Your task to perform on an android device: turn on data saver in the chrome app Image 0: 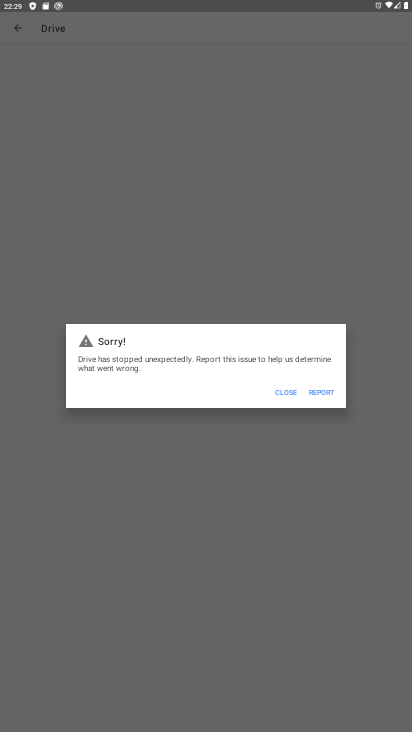
Step 0: press home button
Your task to perform on an android device: turn on data saver in the chrome app Image 1: 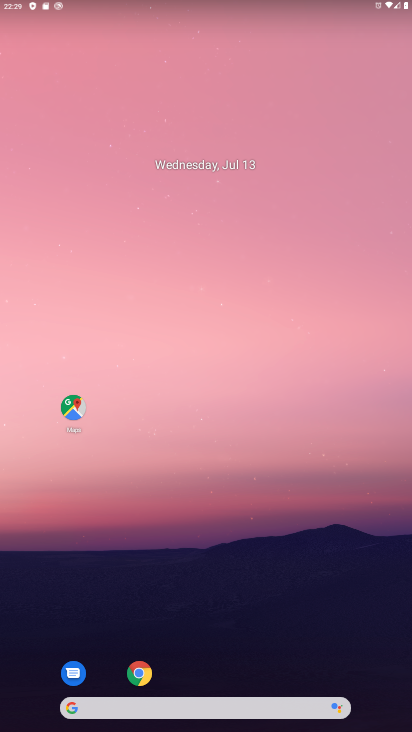
Step 1: drag from (202, 660) to (222, 277)
Your task to perform on an android device: turn on data saver in the chrome app Image 2: 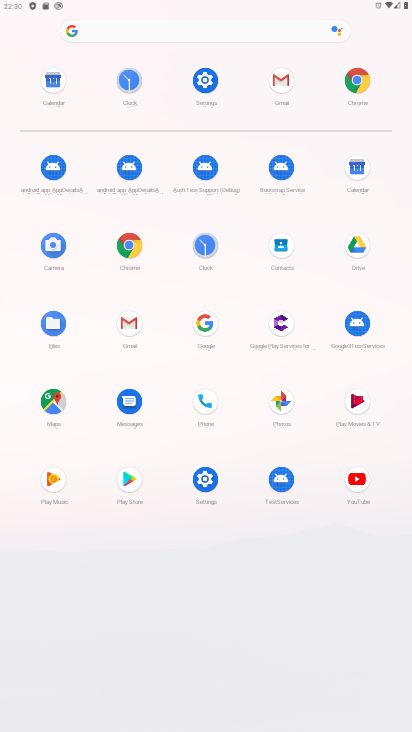
Step 2: click (131, 251)
Your task to perform on an android device: turn on data saver in the chrome app Image 3: 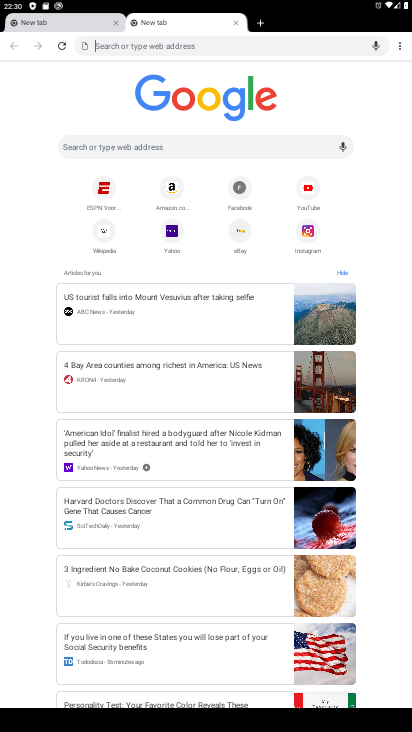
Step 3: click (396, 47)
Your task to perform on an android device: turn on data saver in the chrome app Image 4: 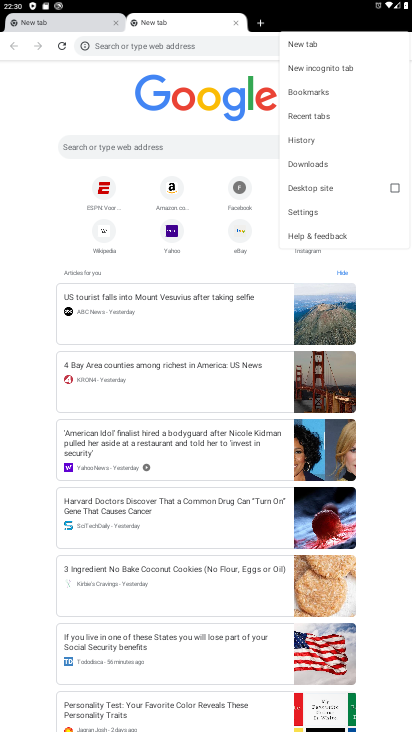
Step 4: click (301, 215)
Your task to perform on an android device: turn on data saver in the chrome app Image 5: 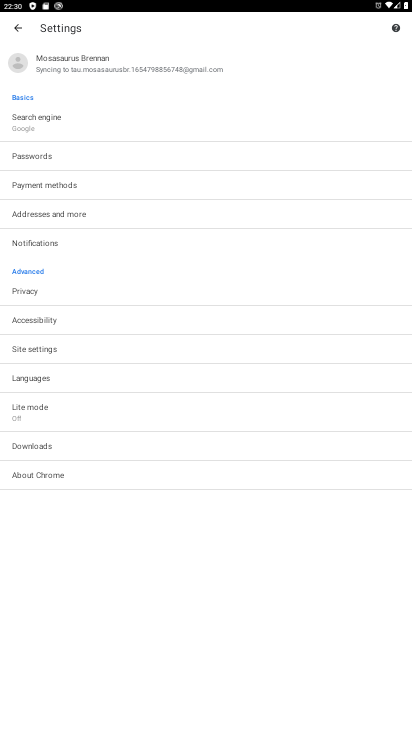
Step 5: click (49, 411)
Your task to perform on an android device: turn on data saver in the chrome app Image 6: 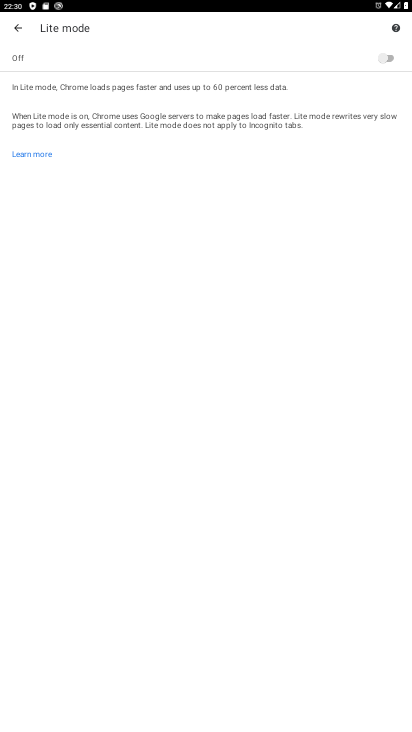
Step 6: click (387, 60)
Your task to perform on an android device: turn on data saver in the chrome app Image 7: 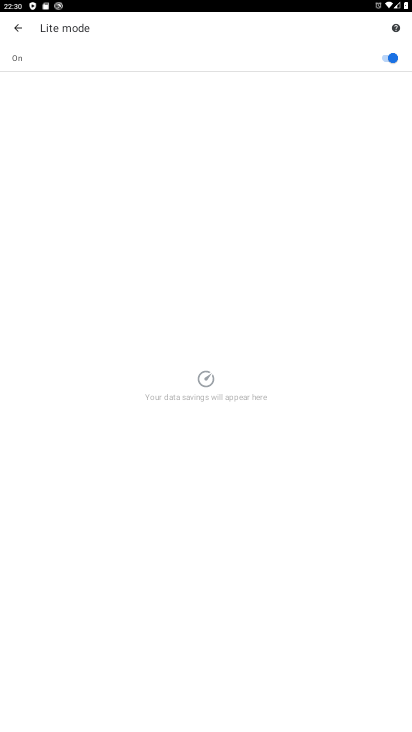
Step 7: task complete